Your task to perform on an android device: turn off priority inbox in the gmail app Image 0: 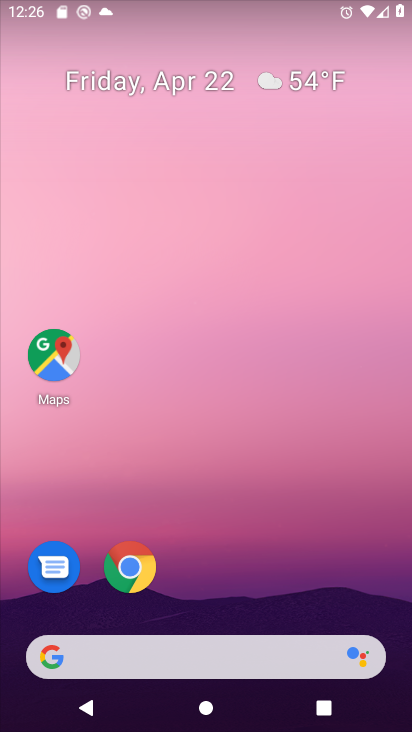
Step 0: drag from (268, 646) to (299, 326)
Your task to perform on an android device: turn off priority inbox in the gmail app Image 1: 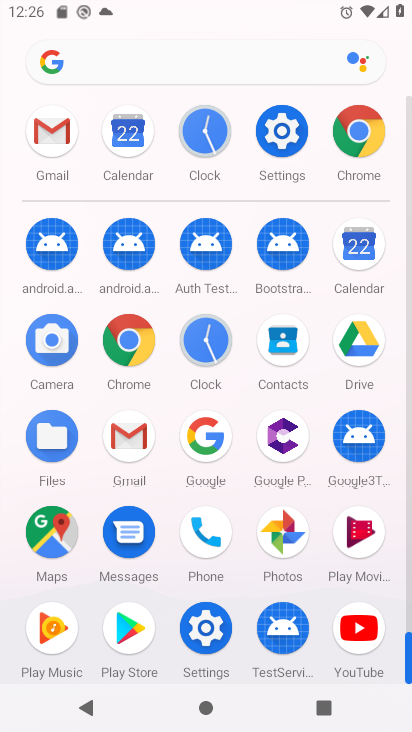
Step 1: click (131, 446)
Your task to perform on an android device: turn off priority inbox in the gmail app Image 2: 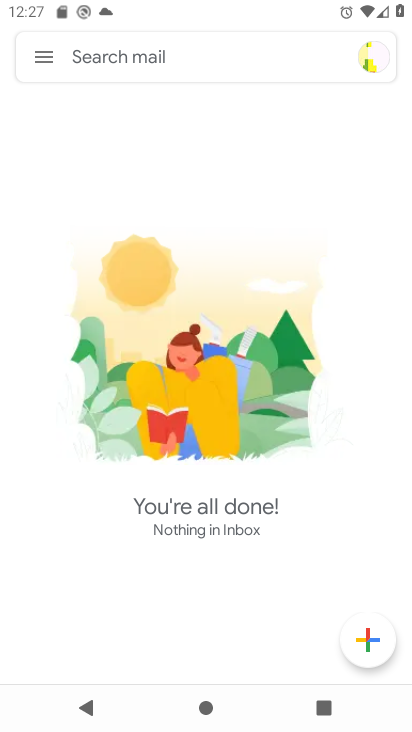
Step 2: click (43, 68)
Your task to perform on an android device: turn off priority inbox in the gmail app Image 3: 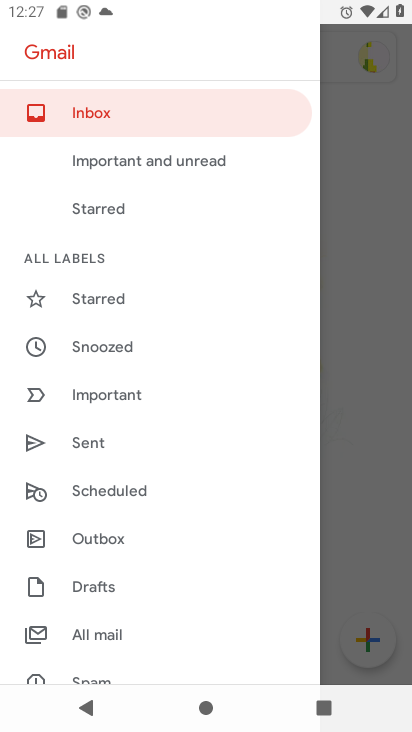
Step 3: drag from (152, 538) to (152, 225)
Your task to perform on an android device: turn off priority inbox in the gmail app Image 4: 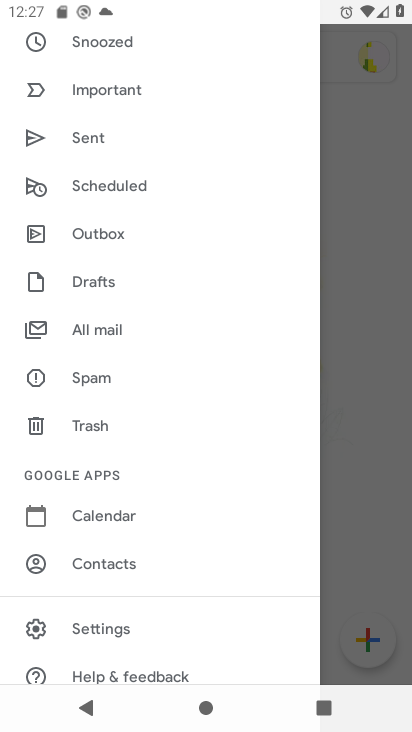
Step 4: click (99, 630)
Your task to perform on an android device: turn off priority inbox in the gmail app Image 5: 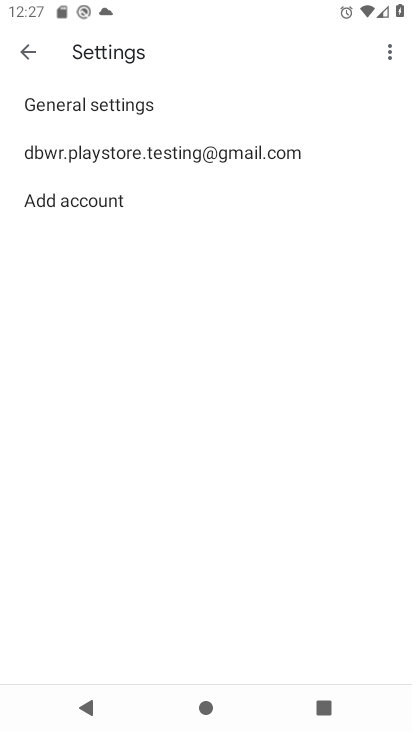
Step 5: click (253, 157)
Your task to perform on an android device: turn off priority inbox in the gmail app Image 6: 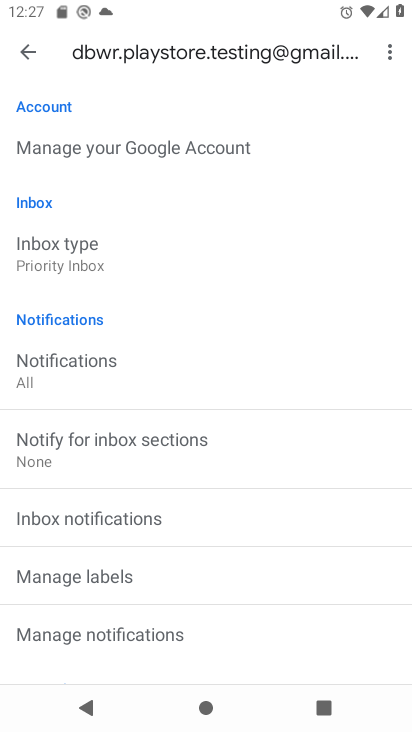
Step 6: click (128, 265)
Your task to perform on an android device: turn off priority inbox in the gmail app Image 7: 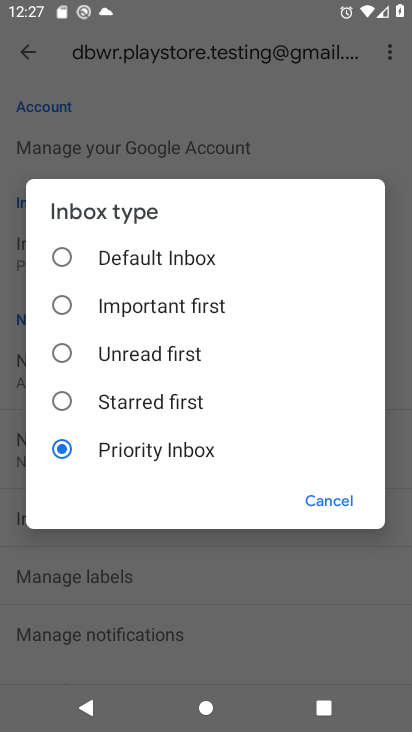
Step 7: click (64, 258)
Your task to perform on an android device: turn off priority inbox in the gmail app Image 8: 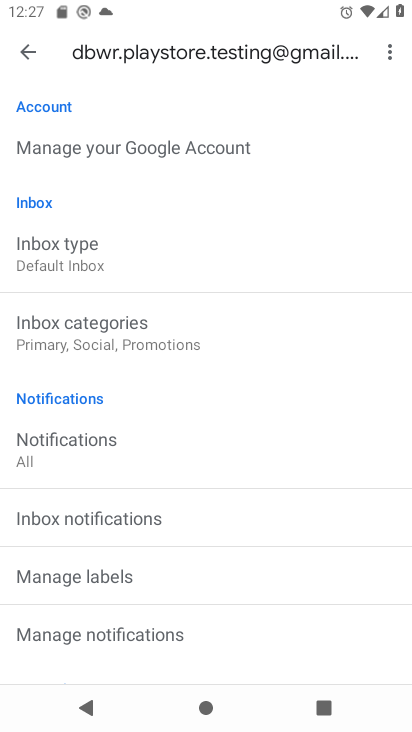
Step 8: task complete